Your task to perform on an android device: Search for Mexican restaurants on Maps Image 0: 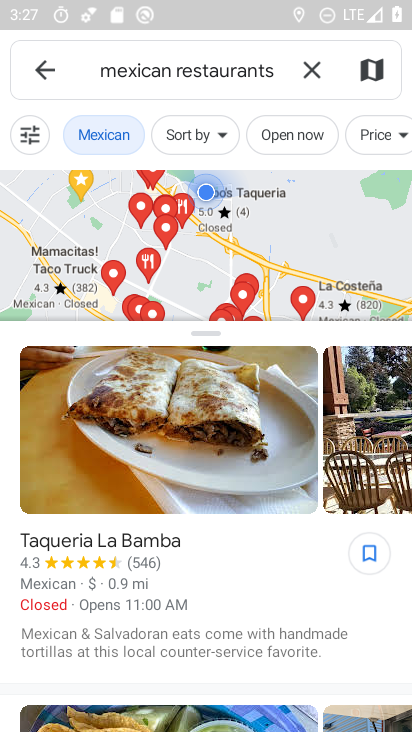
Step 0: task complete